Your task to perform on an android device: Search for a custom made wallet on Etsy Image 0: 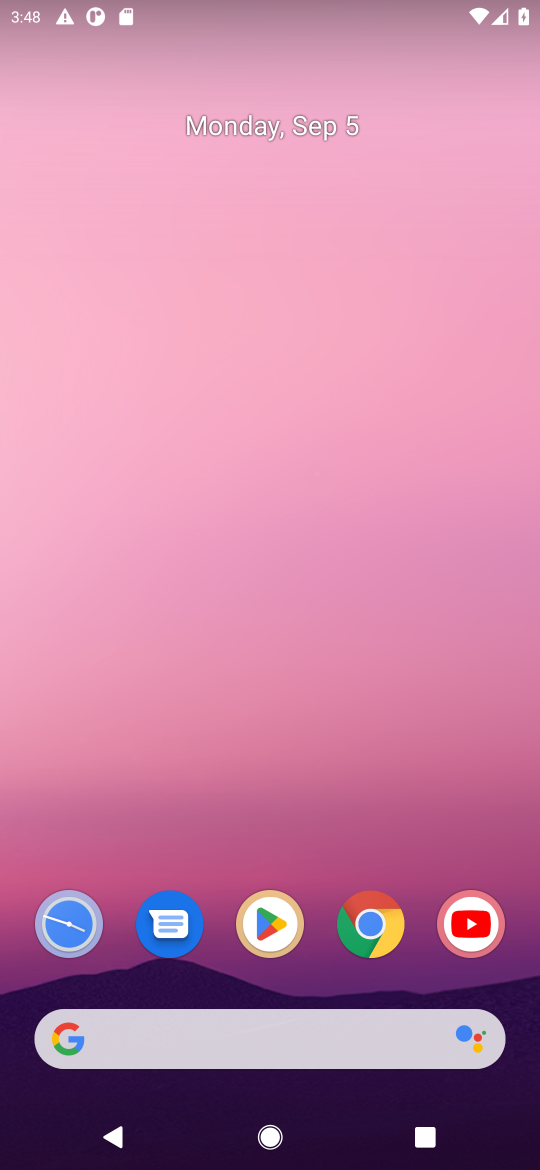
Step 0: click (361, 914)
Your task to perform on an android device: Search for a custom made wallet on Etsy Image 1: 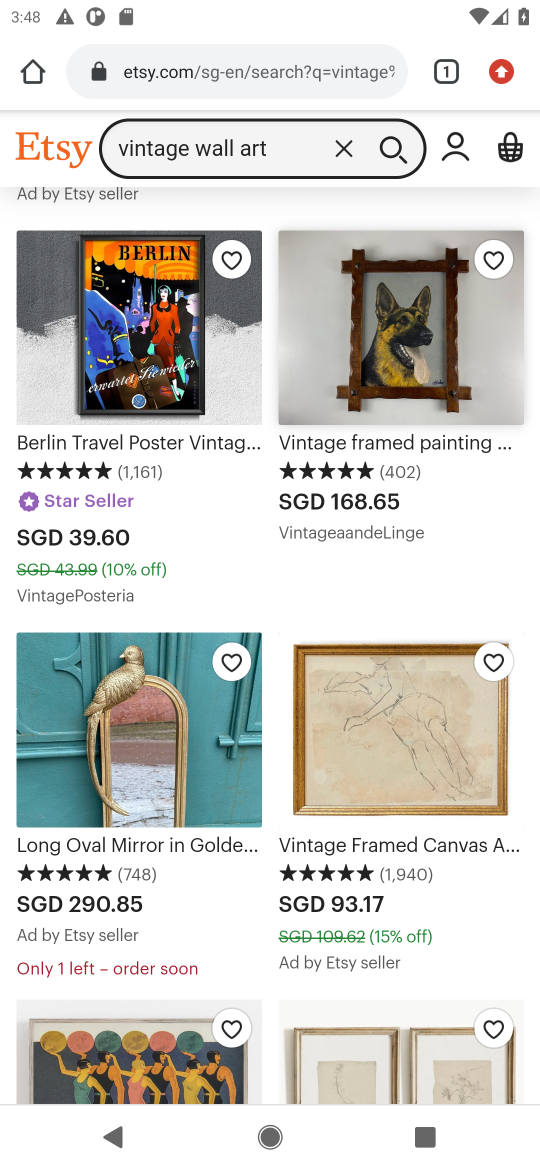
Step 1: click (357, 66)
Your task to perform on an android device: Search for a custom made wallet on Etsy Image 2: 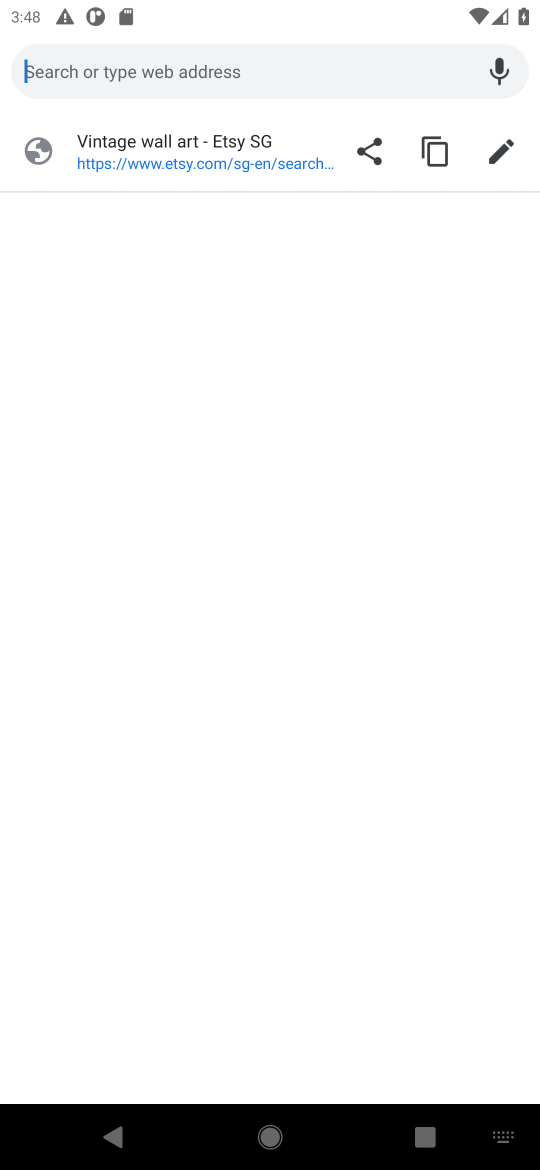
Step 2: type "etsy"
Your task to perform on an android device: Search for a custom made wallet on Etsy Image 3: 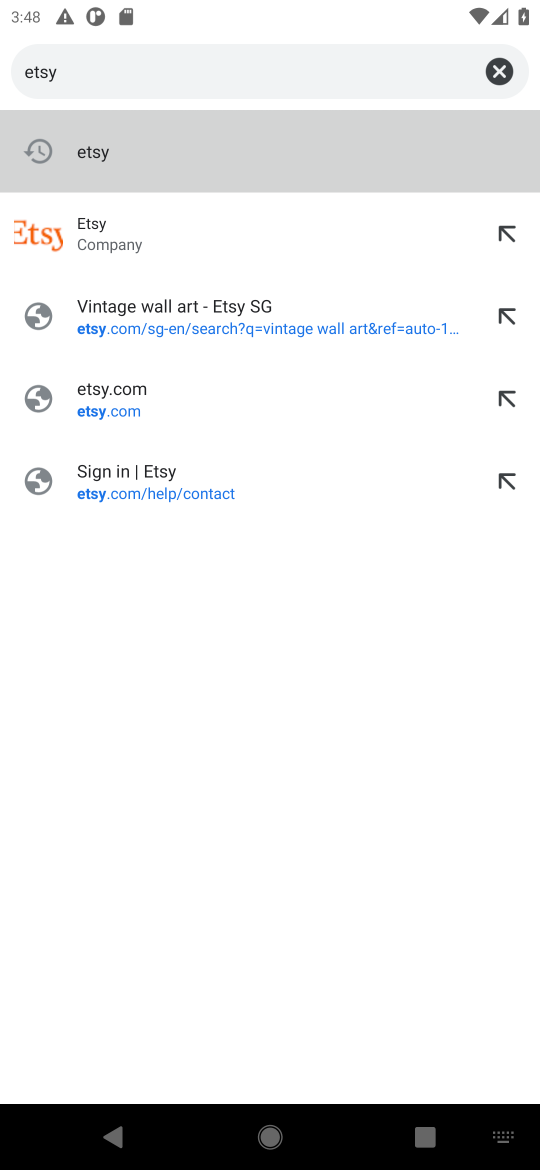
Step 3: type ""
Your task to perform on an android device: Search for a custom made wallet on Etsy Image 4: 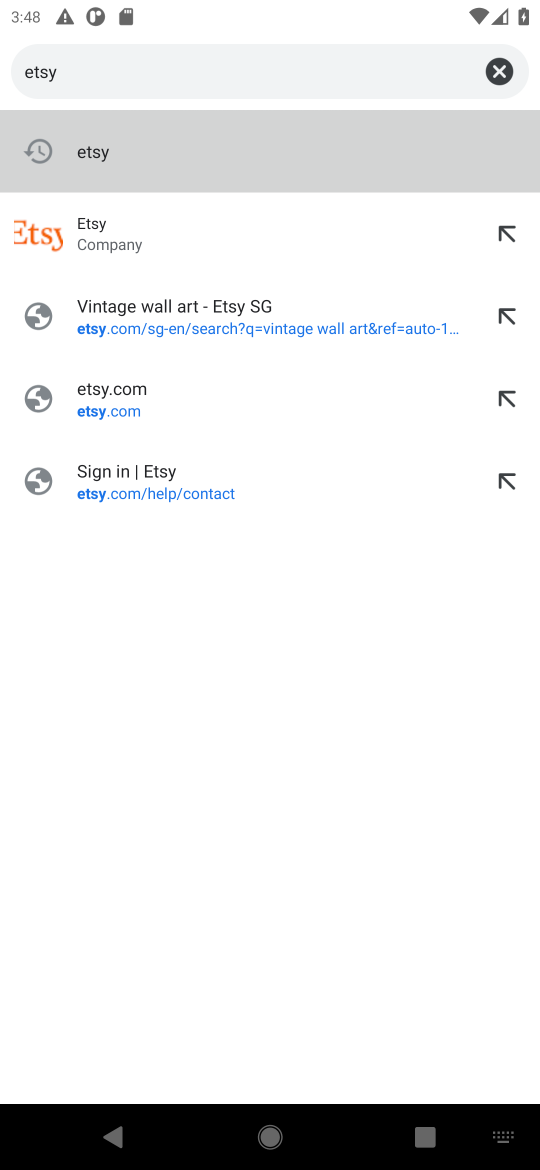
Step 4: click (87, 243)
Your task to perform on an android device: Search for a custom made wallet on Etsy Image 5: 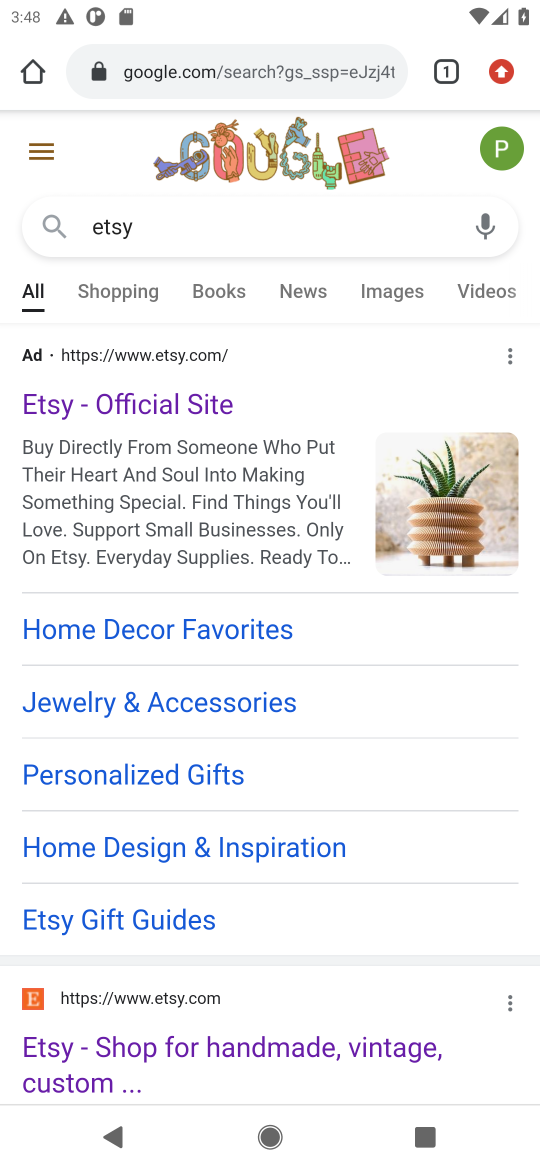
Step 5: click (161, 1053)
Your task to perform on an android device: Search for a custom made wallet on Etsy Image 6: 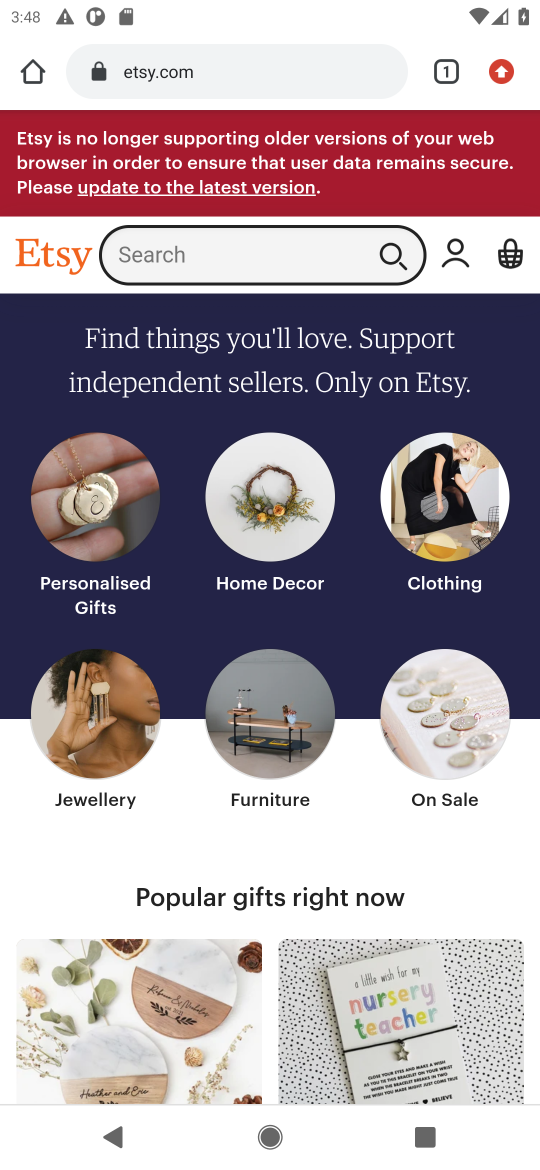
Step 6: click (196, 257)
Your task to perform on an android device: Search for a custom made wallet on Etsy Image 7: 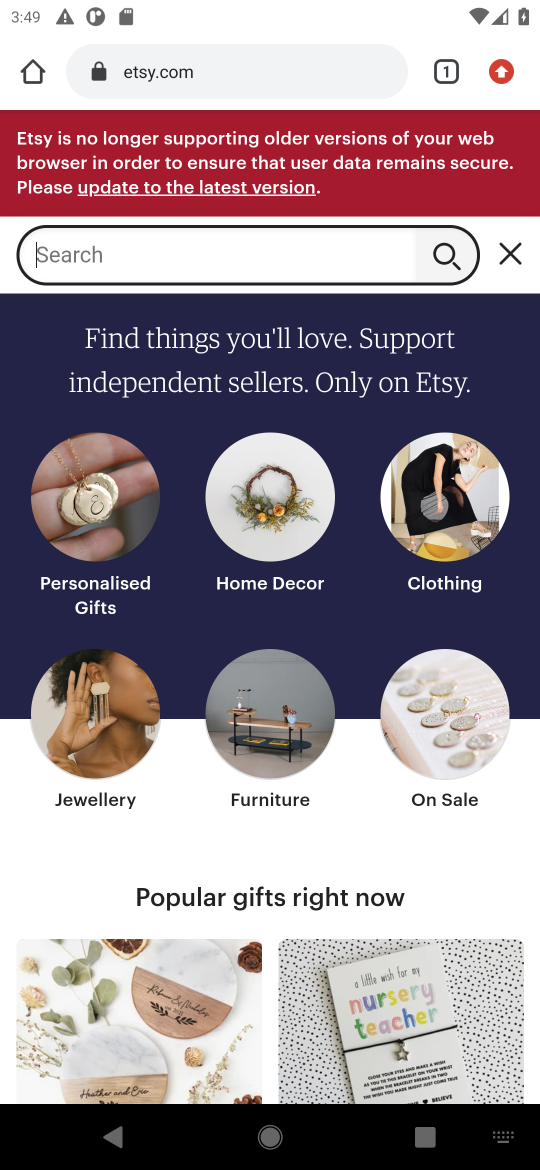
Step 7: type "custom made wallet"
Your task to perform on an android device: Search for a custom made wallet on Etsy Image 8: 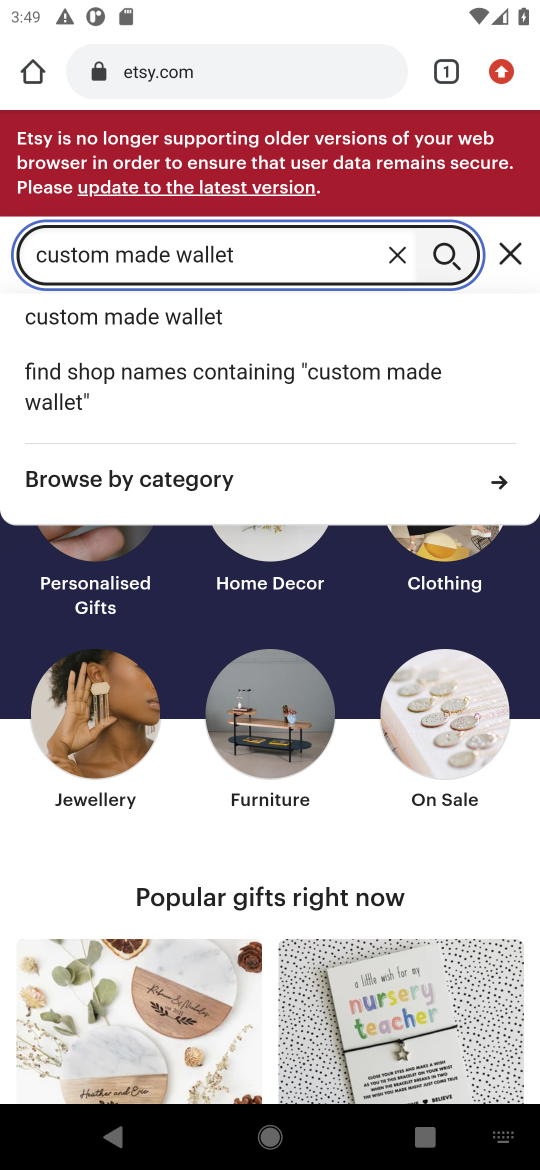
Step 8: click (71, 310)
Your task to perform on an android device: Search for a custom made wallet on Etsy Image 9: 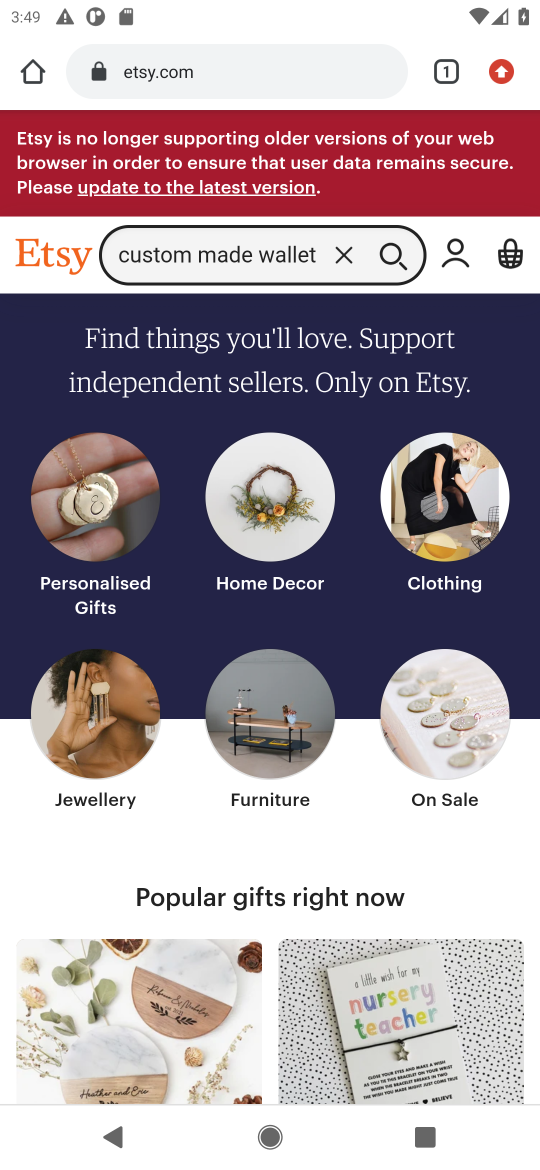
Step 9: click (381, 253)
Your task to perform on an android device: Search for a custom made wallet on Etsy Image 10: 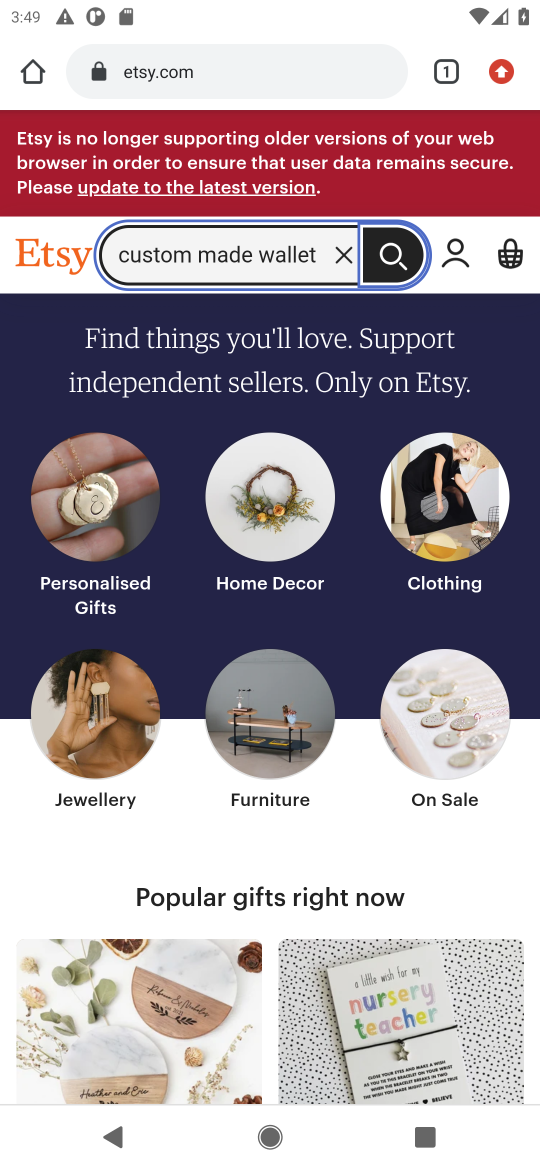
Step 10: press enter
Your task to perform on an android device: Search for a custom made wallet on Etsy Image 11: 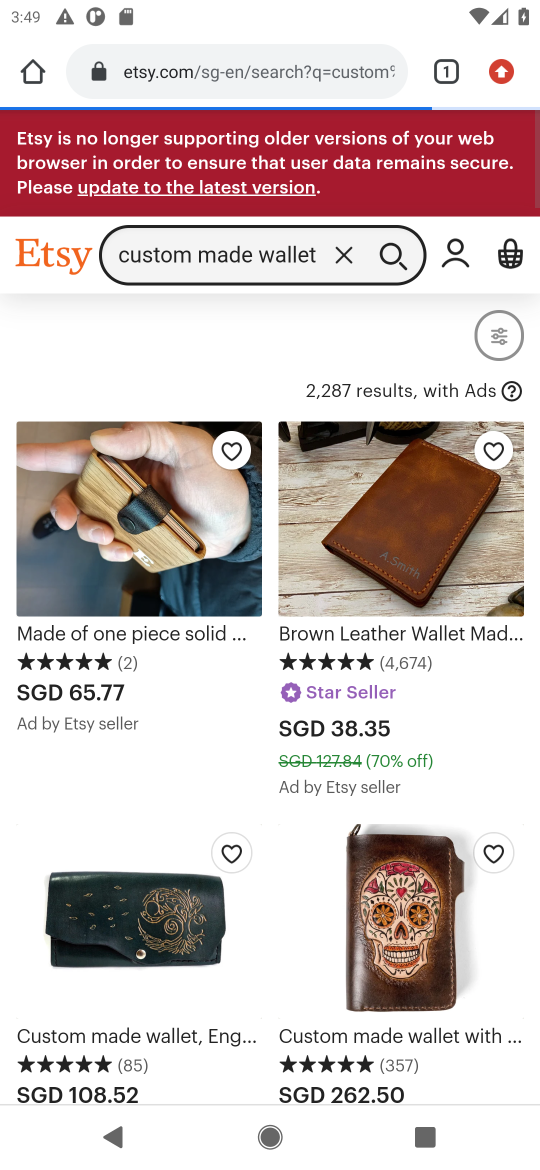
Step 11: drag from (435, 665) to (501, 363)
Your task to perform on an android device: Search for a custom made wallet on Etsy Image 12: 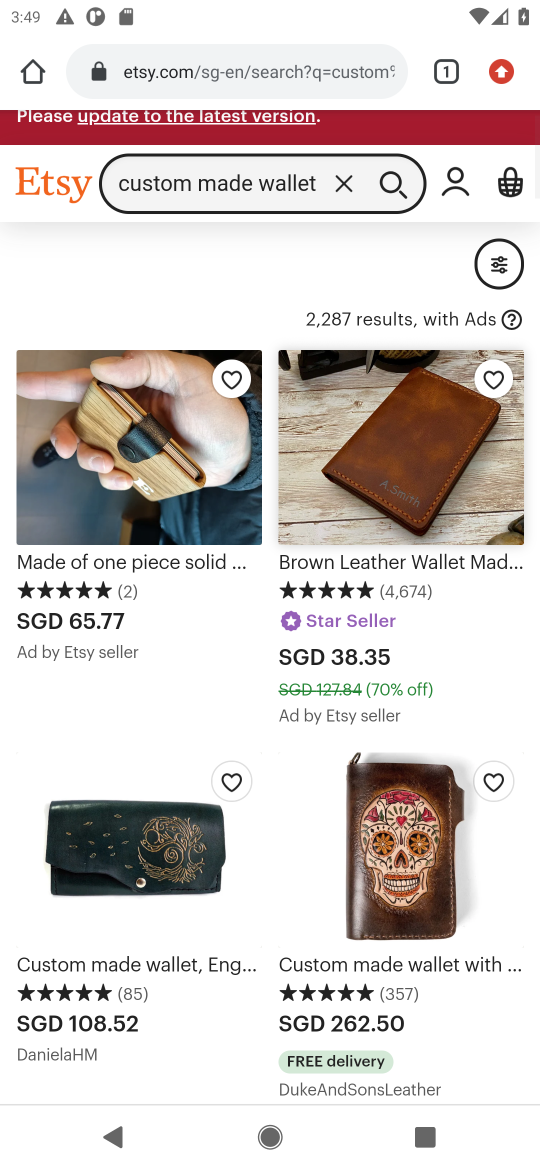
Step 12: drag from (222, 833) to (242, 343)
Your task to perform on an android device: Search for a custom made wallet on Etsy Image 13: 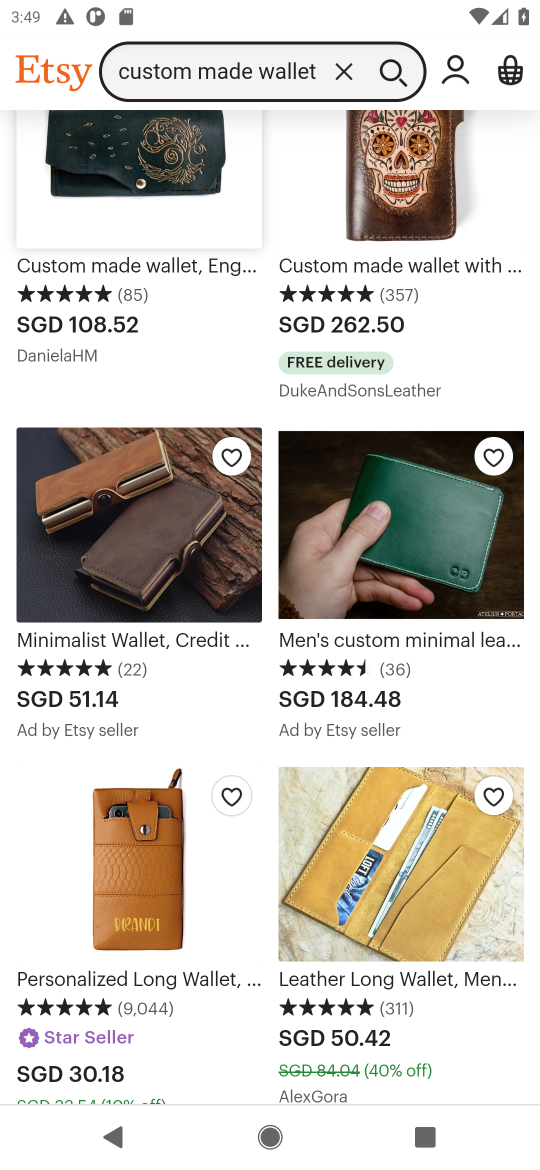
Step 13: drag from (287, 619) to (298, 501)
Your task to perform on an android device: Search for a custom made wallet on Etsy Image 14: 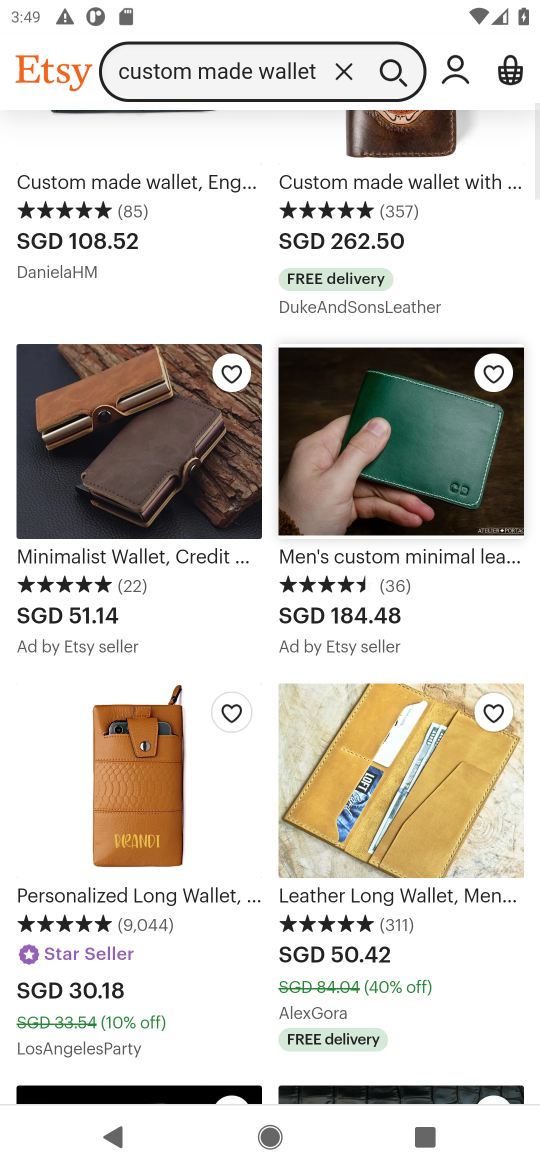
Step 14: click (489, 279)
Your task to perform on an android device: Search for a custom made wallet on Etsy Image 15: 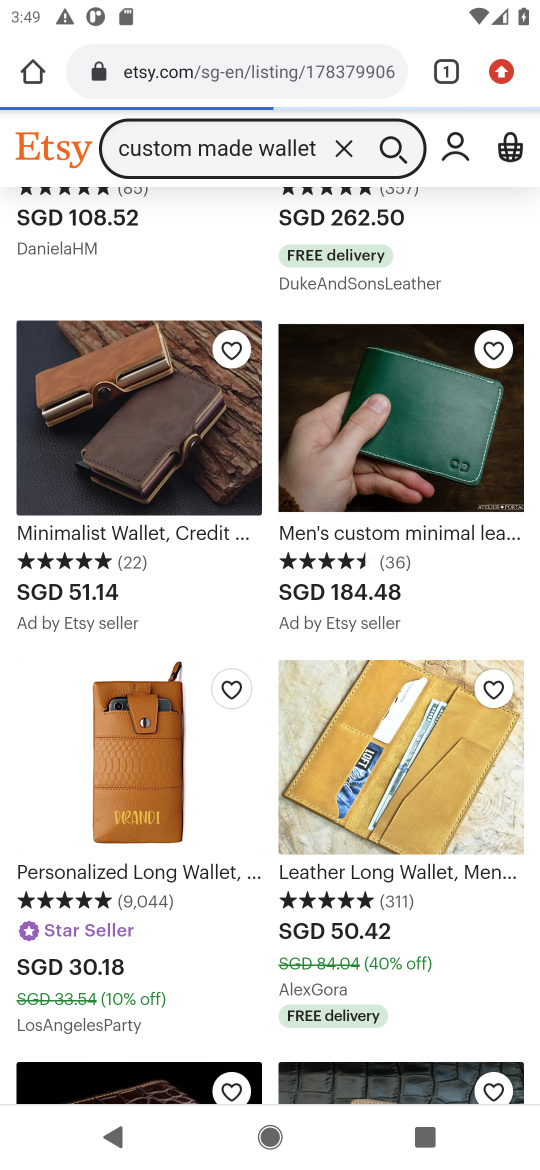
Step 15: task complete